Your task to perform on an android device: turn off data saver in the chrome app Image 0: 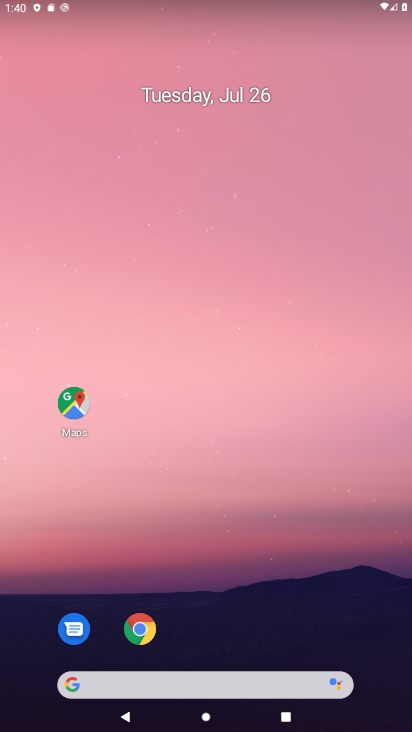
Step 0: click (139, 631)
Your task to perform on an android device: turn off data saver in the chrome app Image 1: 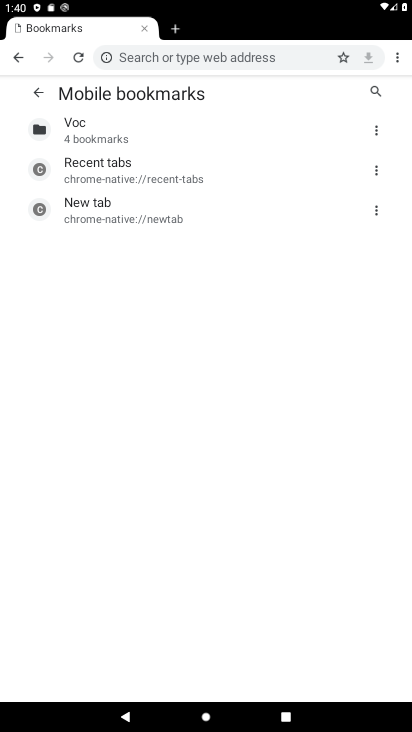
Step 1: click (396, 64)
Your task to perform on an android device: turn off data saver in the chrome app Image 2: 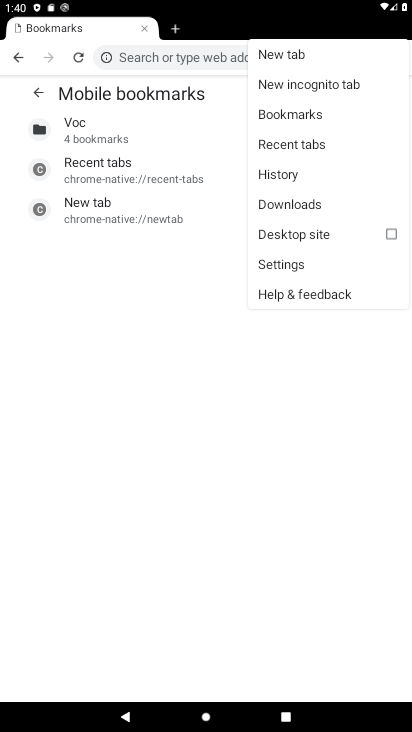
Step 2: click (284, 265)
Your task to perform on an android device: turn off data saver in the chrome app Image 3: 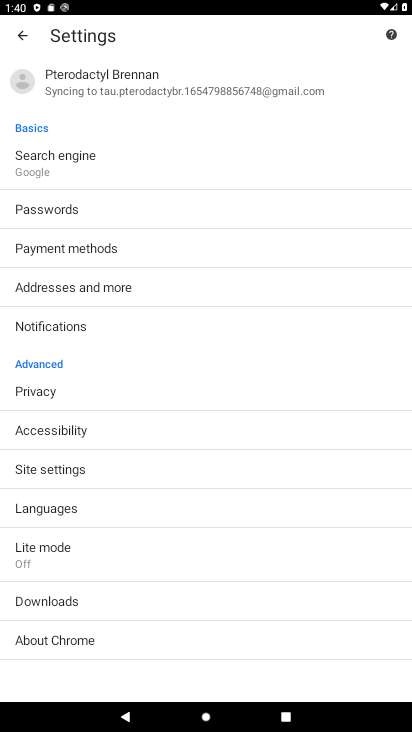
Step 3: click (52, 551)
Your task to perform on an android device: turn off data saver in the chrome app Image 4: 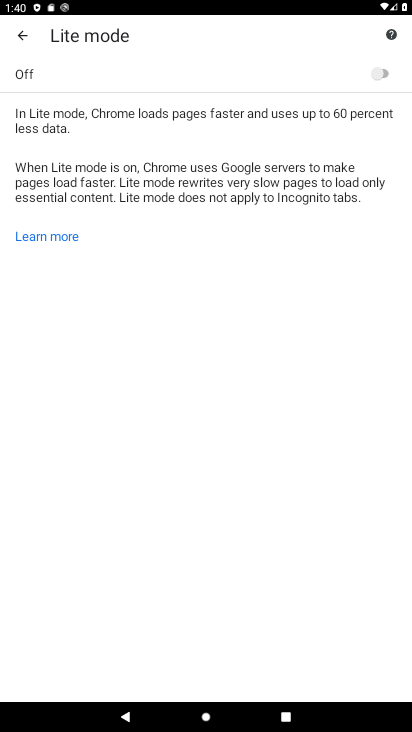
Step 4: task complete